Your task to perform on an android device: change the clock display to digital Image 0: 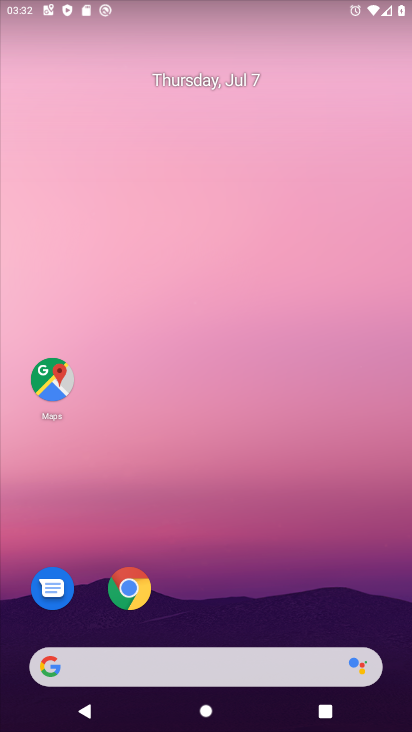
Step 0: drag from (211, 625) to (208, 164)
Your task to perform on an android device: change the clock display to digital Image 1: 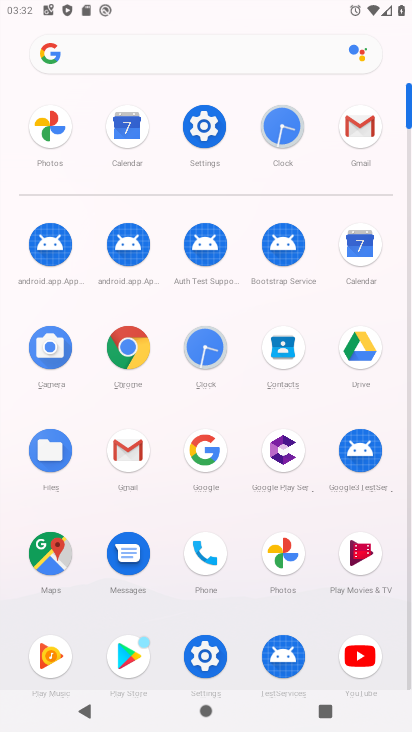
Step 1: click (199, 351)
Your task to perform on an android device: change the clock display to digital Image 2: 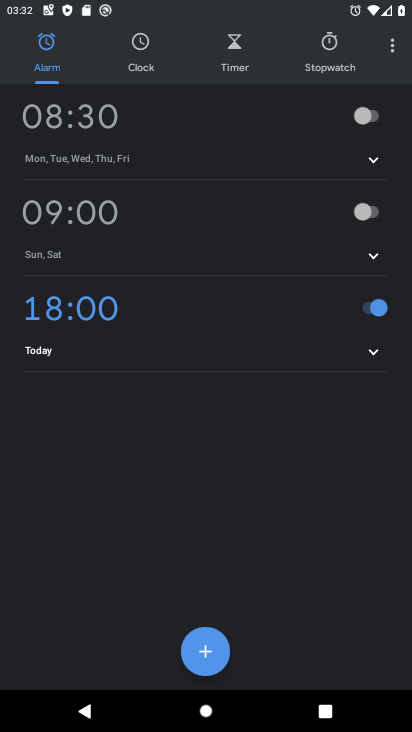
Step 2: click (388, 56)
Your task to perform on an android device: change the clock display to digital Image 3: 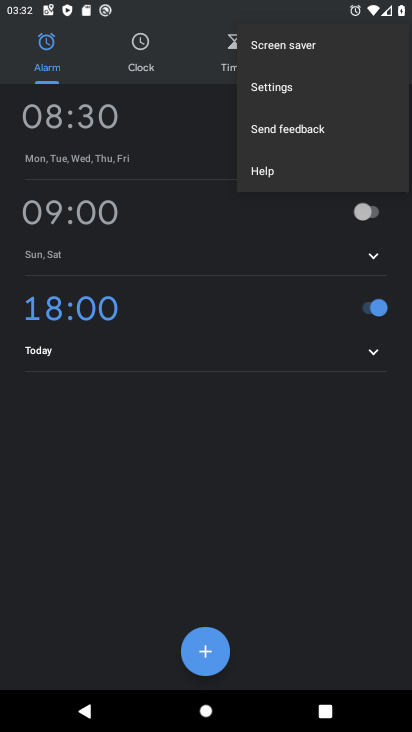
Step 3: click (284, 85)
Your task to perform on an android device: change the clock display to digital Image 4: 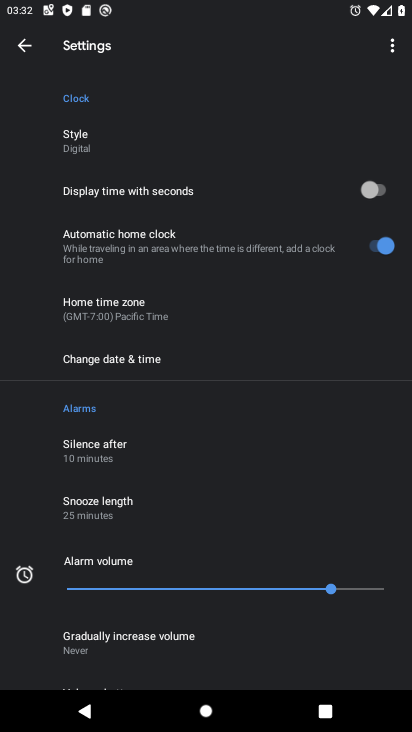
Step 4: click (94, 145)
Your task to perform on an android device: change the clock display to digital Image 5: 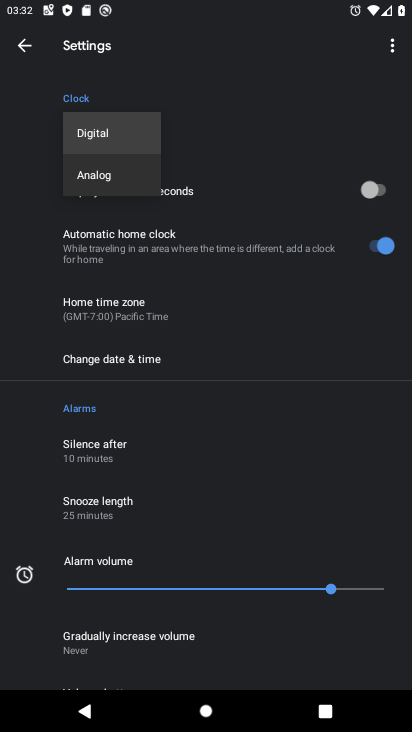
Step 5: click (86, 179)
Your task to perform on an android device: change the clock display to digital Image 6: 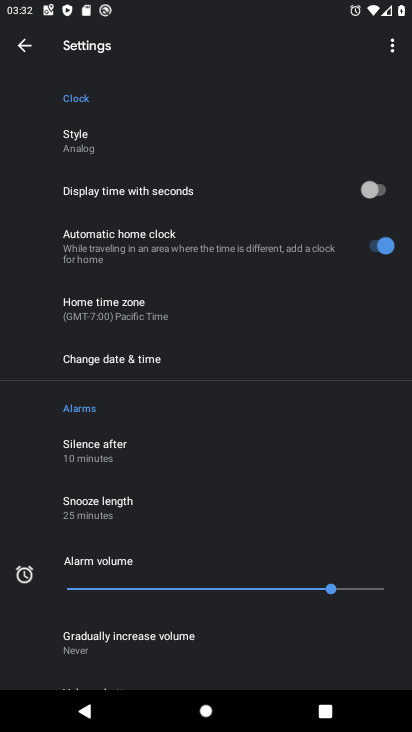
Step 6: task complete